Your task to perform on an android device: Check the news Image 0: 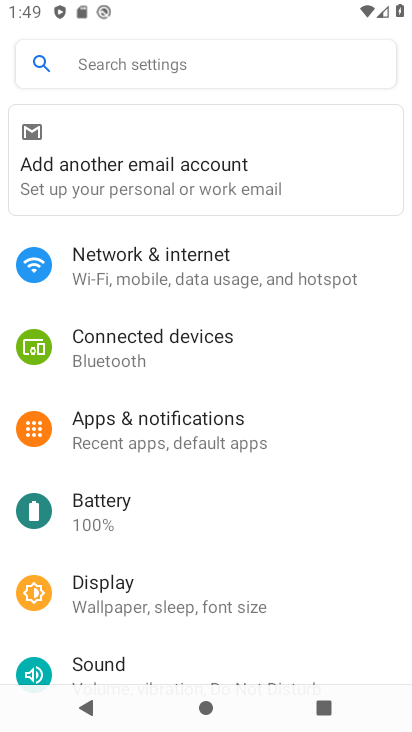
Step 0: press home button
Your task to perform on an android device: Check the news Image 1: 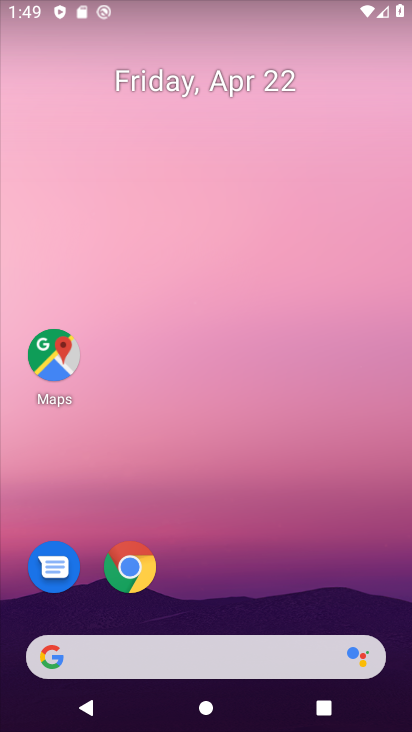
Step 1: drag from (276, 600) to (297, 96)
Your task to perform on an android device: Check the news Image 2: 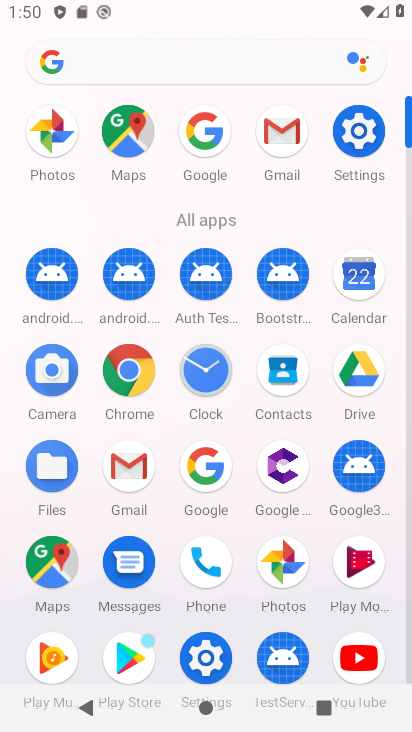
Step 2: click (214, 467)
Your task to perform on an android device: Check the news Image 3: 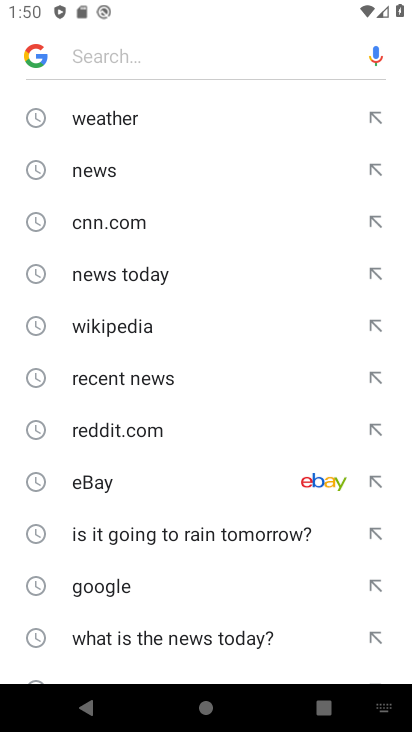
Step 3: click (110, 173)
Your task to perform on an android device: Check the news Image 4: 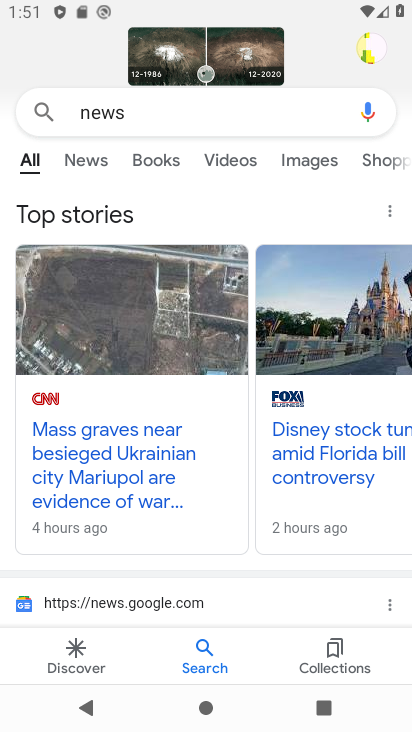
Step 4: task complete